Your task to perform on an android device: What's the news in Sri Lanka? Image 0: 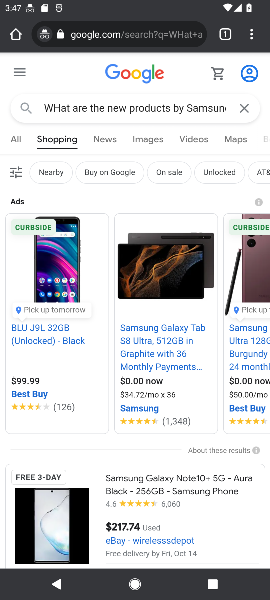
Step 0: click (113, 42)
Your task to perform on an android device: What's the news in Sri Lanka? Image 1: 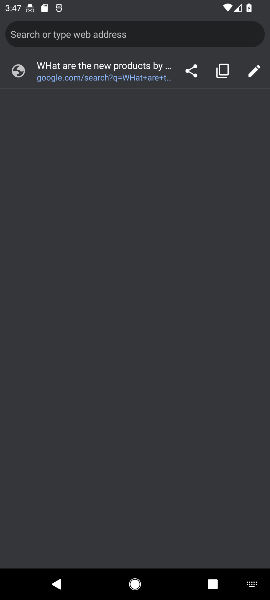
Step 1: type "What's the news in Sri Lanka?"
Your task to perform on an android device: What's the news in Sri Lanka? Image 2: 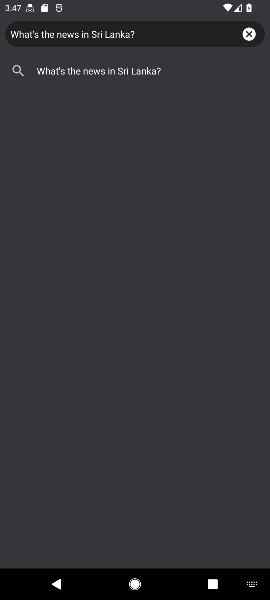
Step 2: click (139, 63)
Your task to perform on an android device: What's the news in Sri Lanka? Image 3: 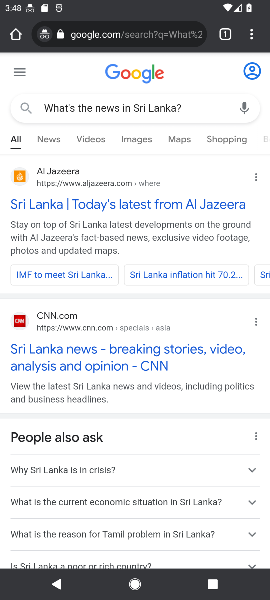
Step 3: click (60, 135)
Your task to perform on an android device: What's the news in Sri Lanka? Image 4: 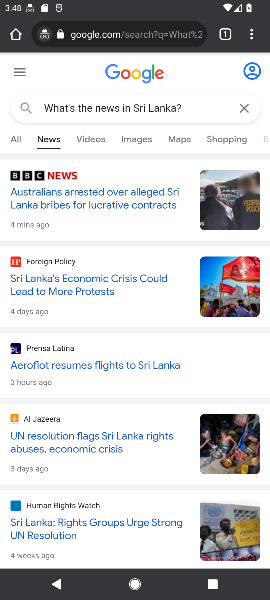
Step 4: task complete